Your task to perform on an android device: What is the recent news? Image 0: 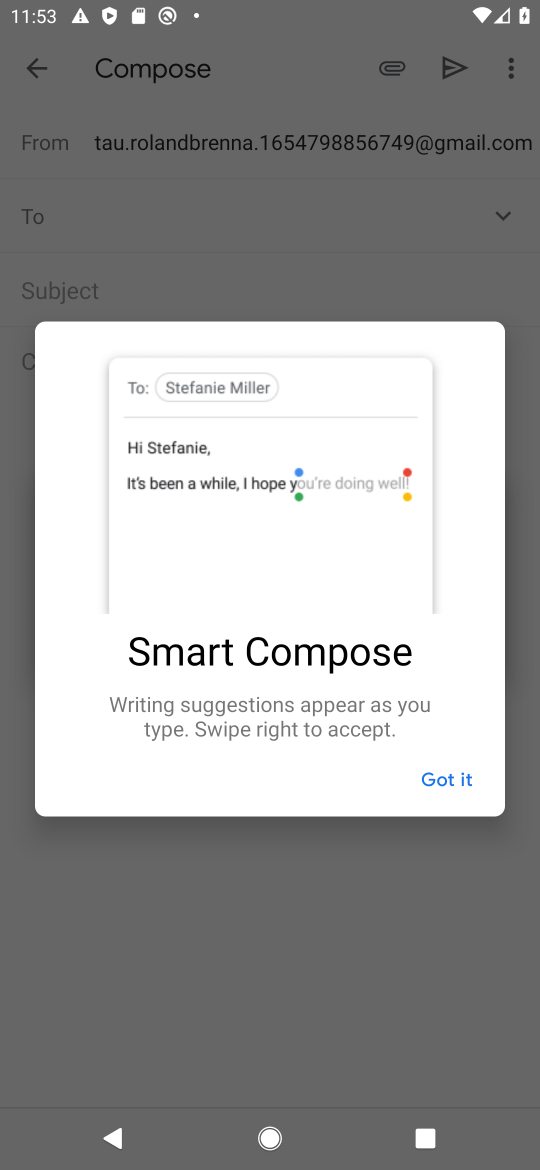
Step 0: press home button
Your task to perform on an android device: What is the recent news? Image 1: 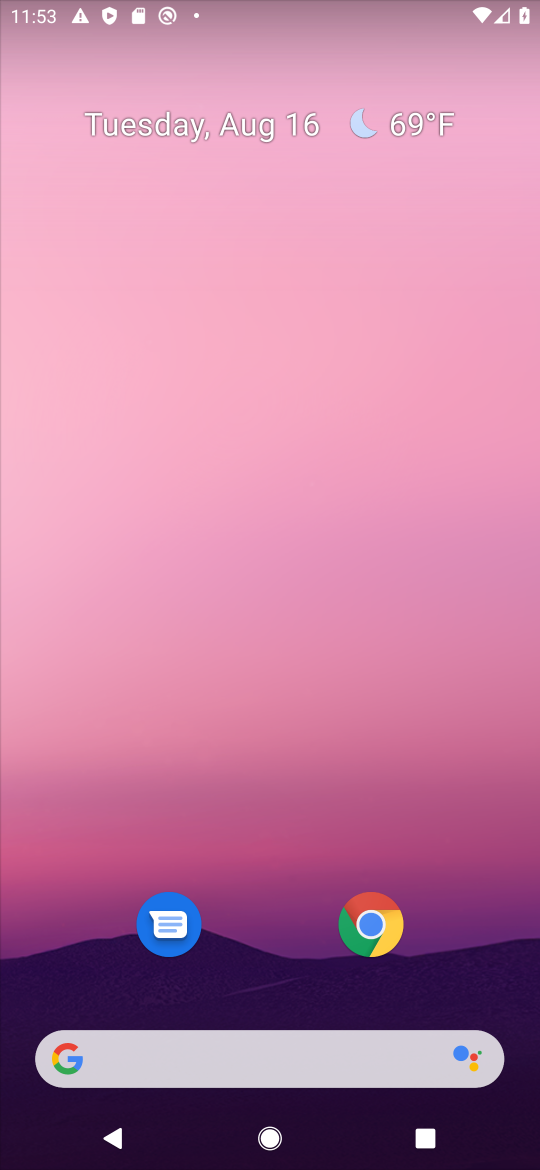
Step 1: click (288, 1059)
Your task to perform on an android device: What is the recent news? Image 2: 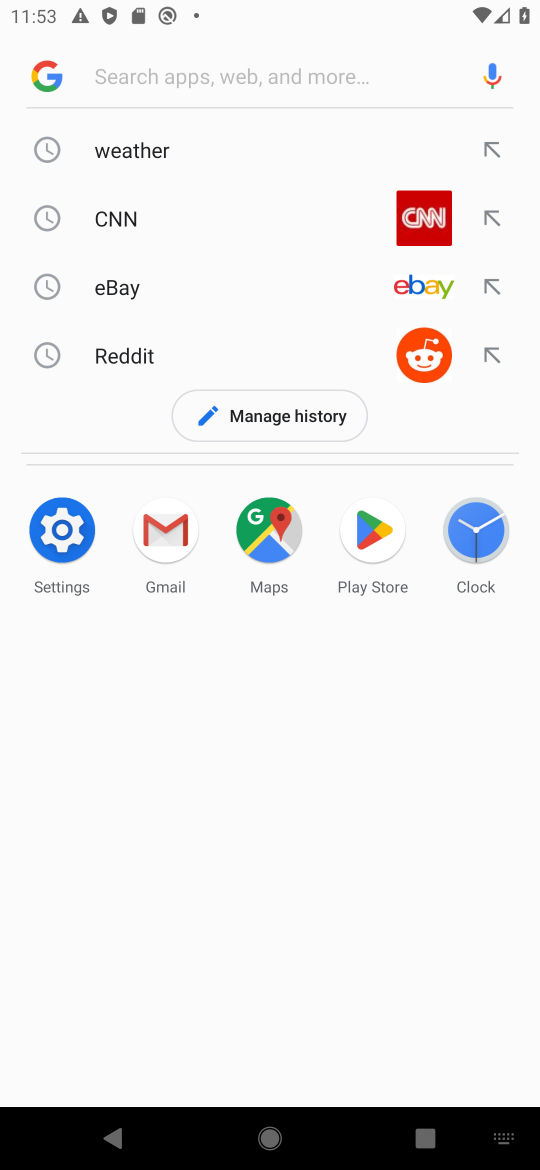
Step 2: click (40, 83)
Your task to perform on an android device: What is the recent news? Image 3: 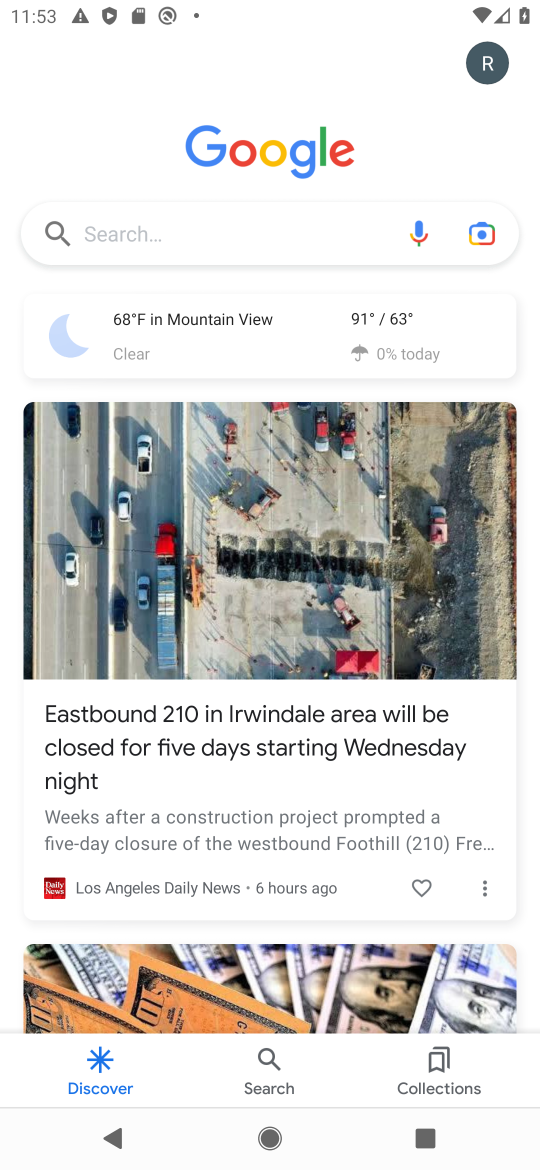
Step 3: task complete